Your task to perform on an android device: Search for seafood restaurants on Google Maps Image 0: 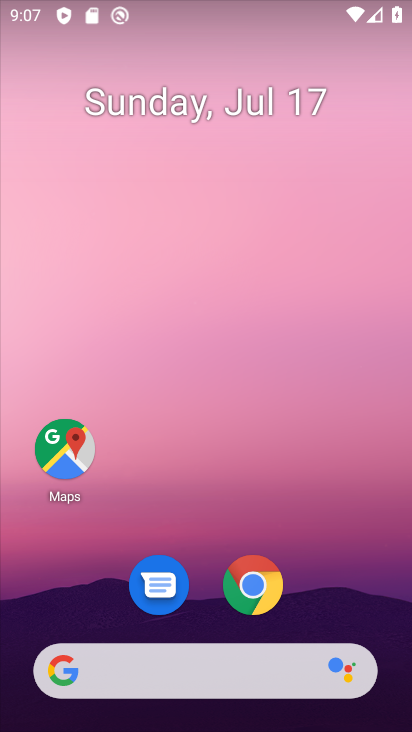
Step 0: click (64, 455)
Your task to perform on an android device: Search for seafood restaurants on Google Maps Image 1: 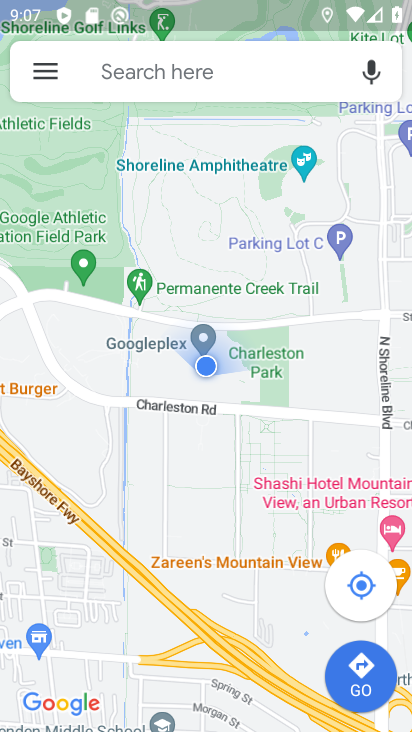
Step 1: click (186, 76)
Your task to perform on an android device: Search for seafood restaurants on Google Maps Image 2: 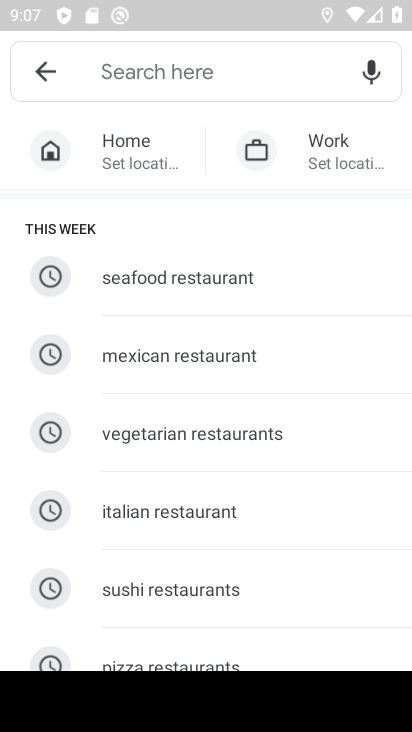
Step 2: click (162, 274)
Your task to perform on an android device: Search for seafood restaurants on Google Maps Image 3: 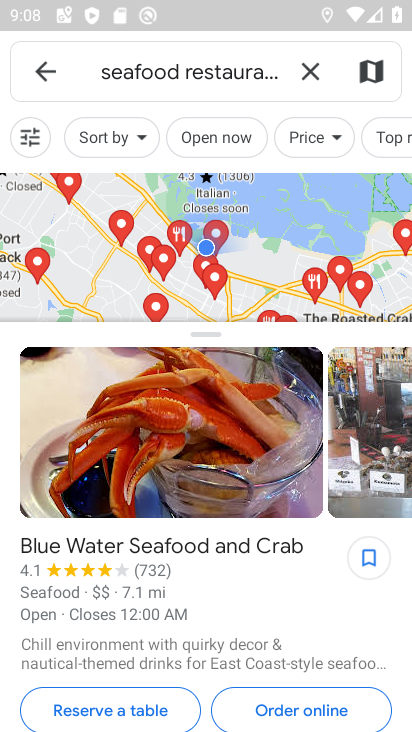
Step 3: task complete